Your task to perform on an android device: Open Youtube and go to the subscriptions tab Image 0: 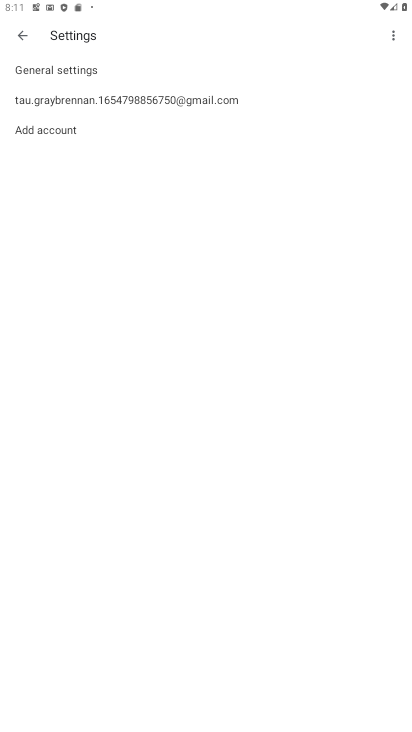
Step 0: press home button
Your task to perform on an android device: Open Youtube and go to the subscriptions tab Image 1: 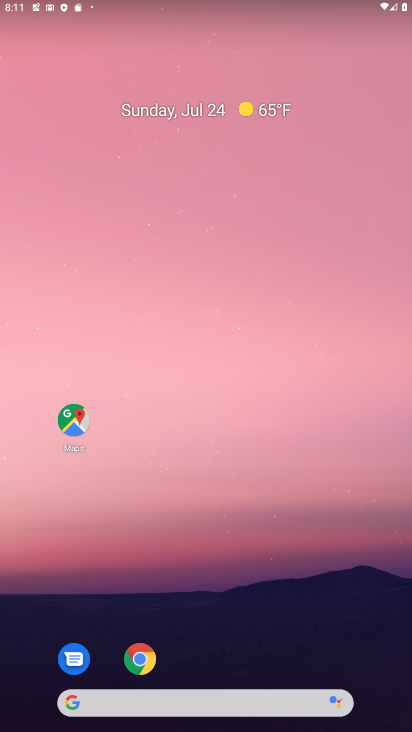
Step 1: drag from (245, 673) to (260, 65)
Your task to perform on an android device: Open Youtube and go to the subscriptions tab Image 2: 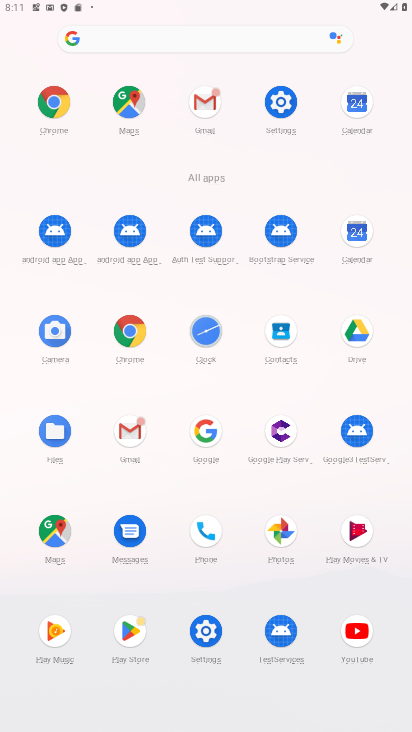
Step 2: click (358, 637)
Your task to perform on an android device: Open Youtube and go to the subscriptions tab Image 3: 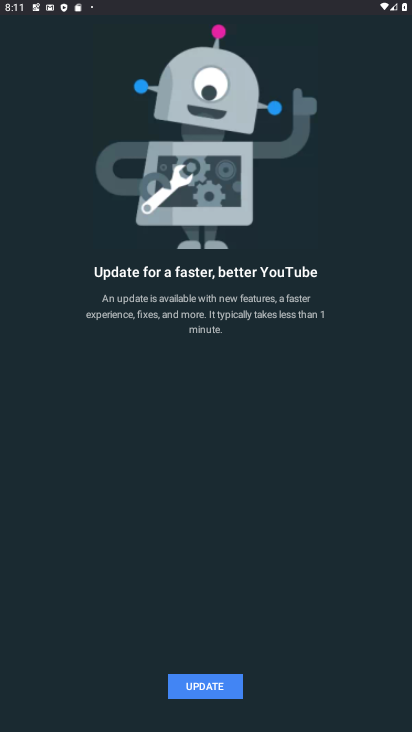
Step 3: click (195, 687)
Your task to perform on an android device: Open Youtube and go to the subscriptions tab Image 4: 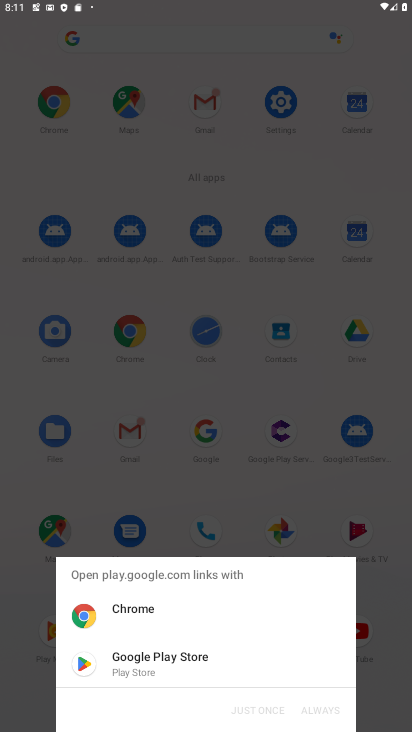
Step 4: click (122, 664)
Your task to perform on an android device: Open Youtube and go to the subscriptions tab Image 5: 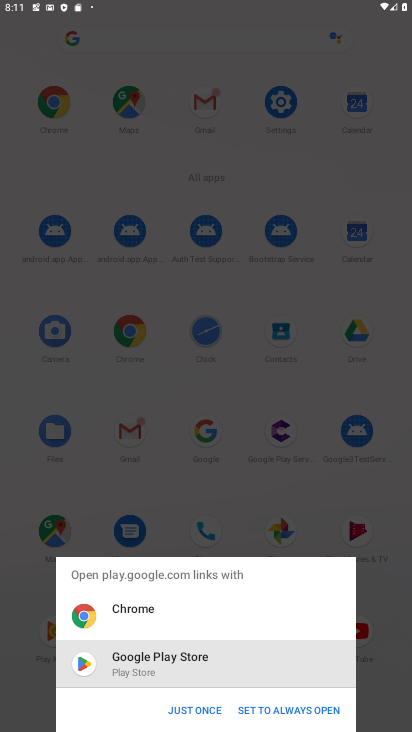
Step 5: click (195, 710)
Your task to perform on an android device: Open Youtube and go to the subscriptions tab Image 6: 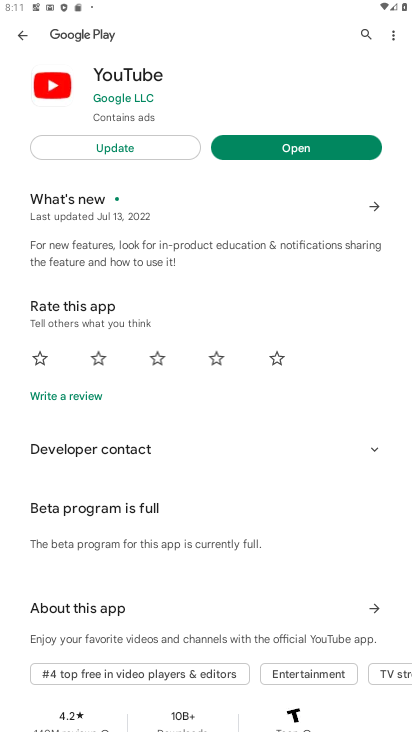
Step 6: click (94, 149)
Your task to perform on an android device: Open Youtube and go to the subscriptions tab Image 7: 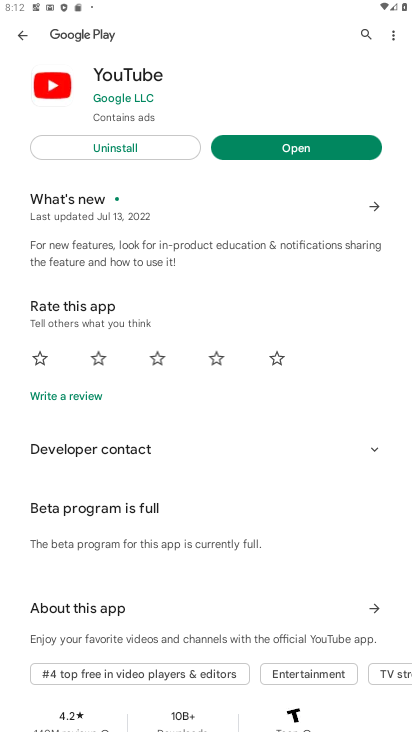
Step 7: click (244, 150)
Your task to perform on an android device: Open Youtube and go to the subscriptions tab Image 8: 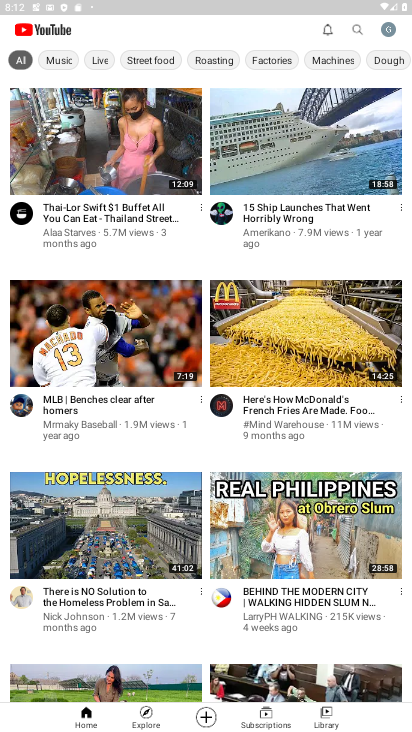
Step 8: click (261, 724)
Your task to perform on an android device: Open Youtube and go to the subscriptions tab Image 9: 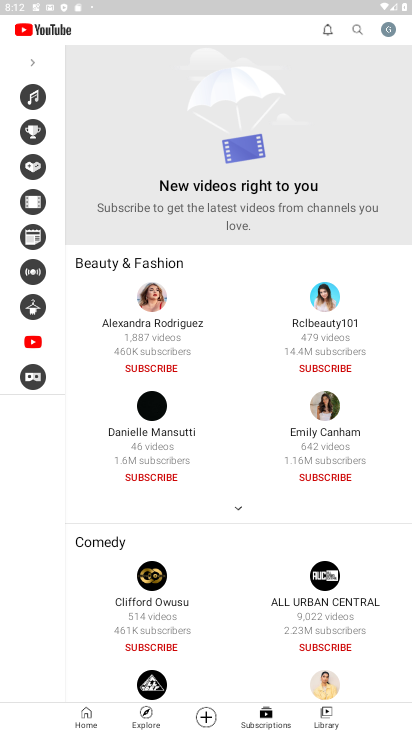
Step 9: task complete